Your task to perform on an android device: What's the weather going to be this weekend? Image 0: 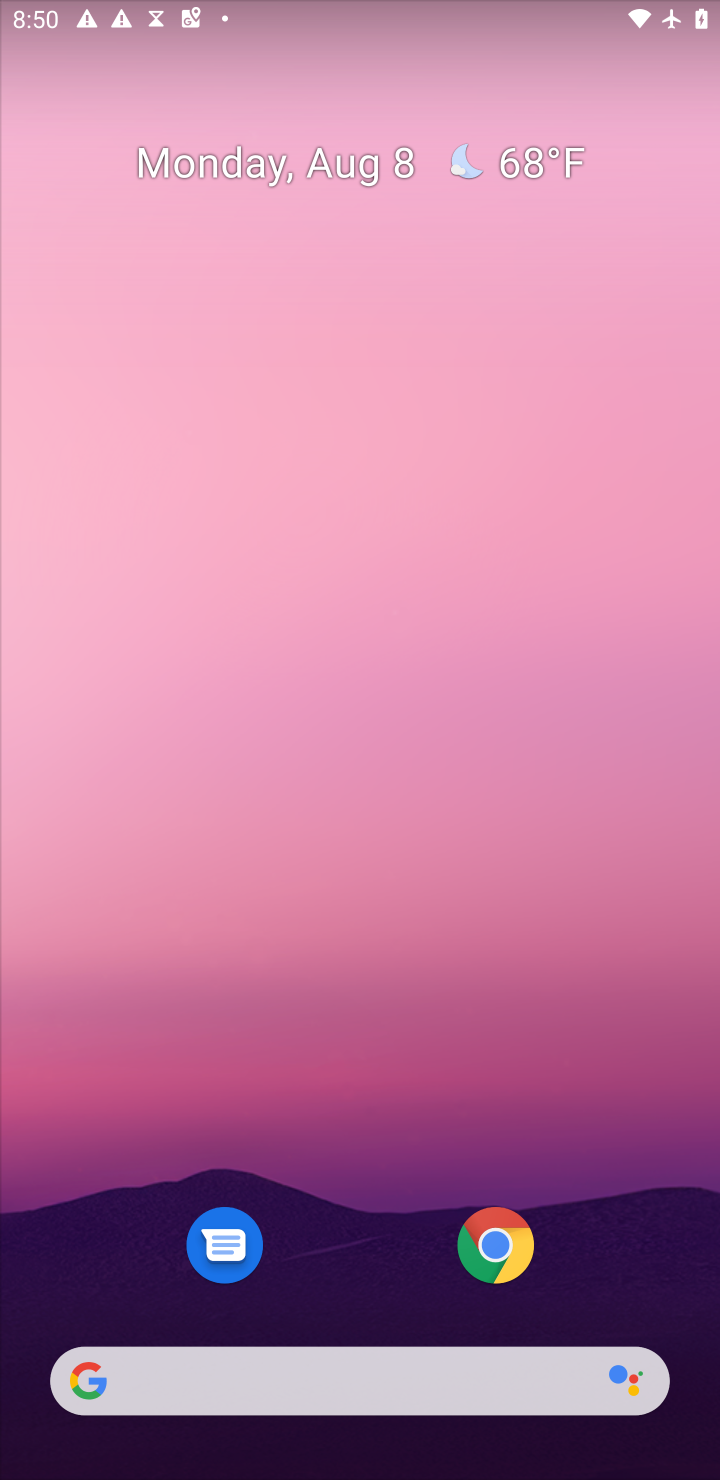
Step 0: drag from (370, 1329) to (504, 169)
Your task to perform on an android device: What's the weather going to be this weekend? Image 1: 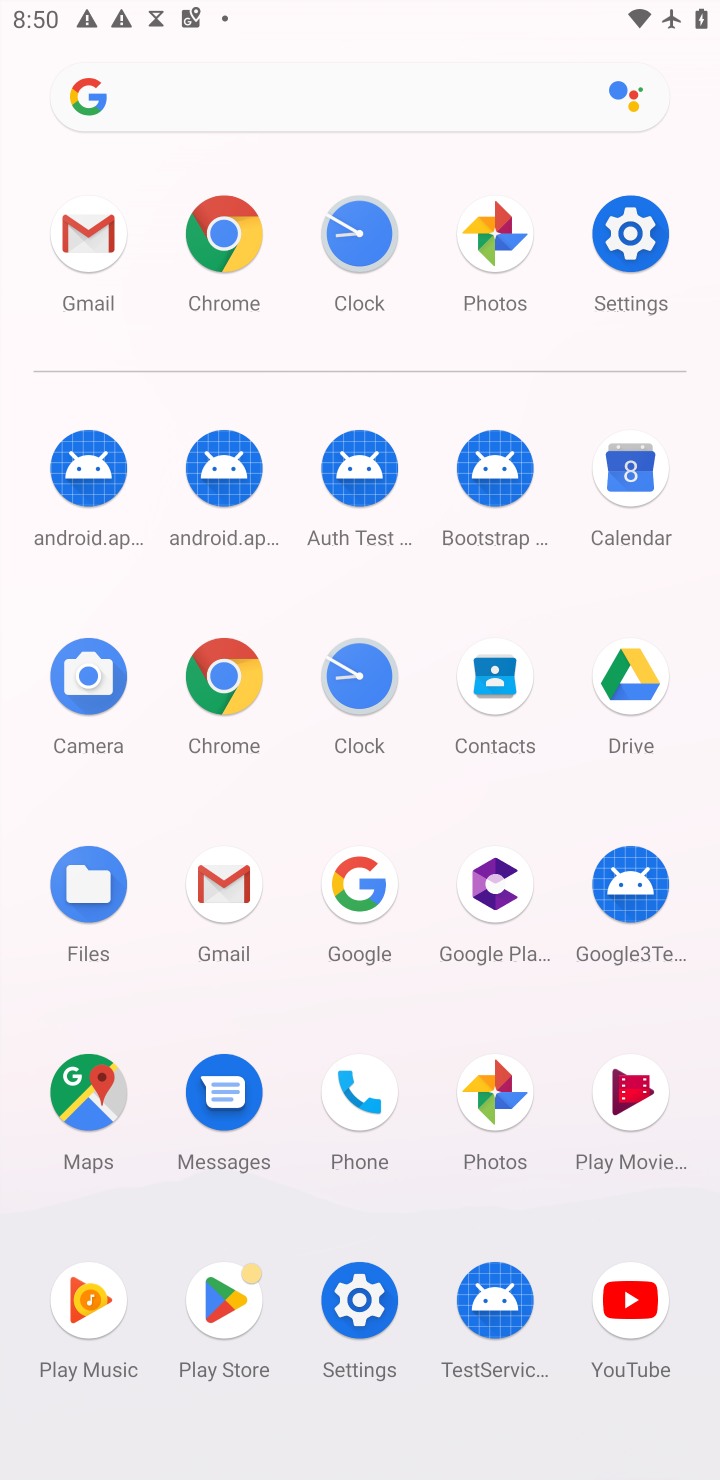
Step 1: click (346, 99)
Your task to perform on an android device: What's the weather going to be this weekend? Image 2: 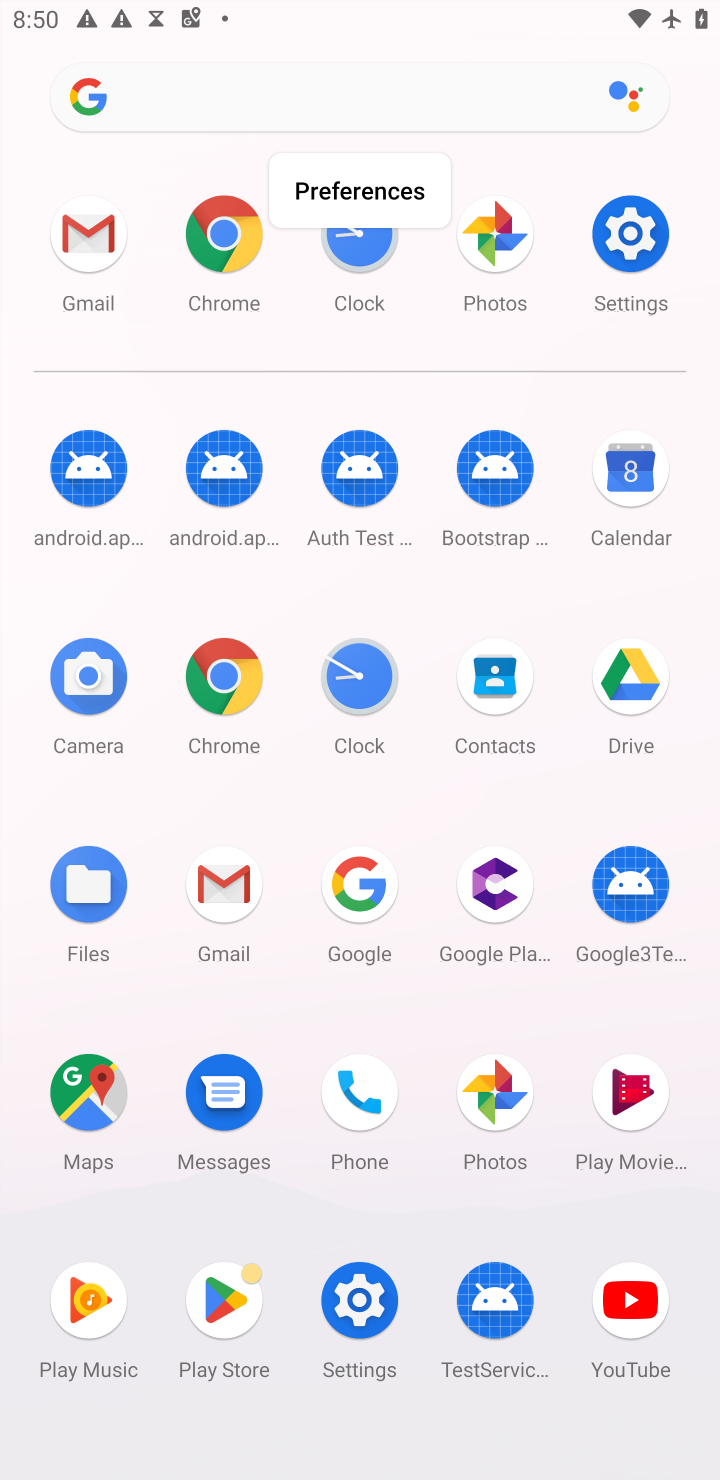
Step 2: click (339, 96)
Your task to perform on an android device: What's the weather going to be this weekend? Image 3: 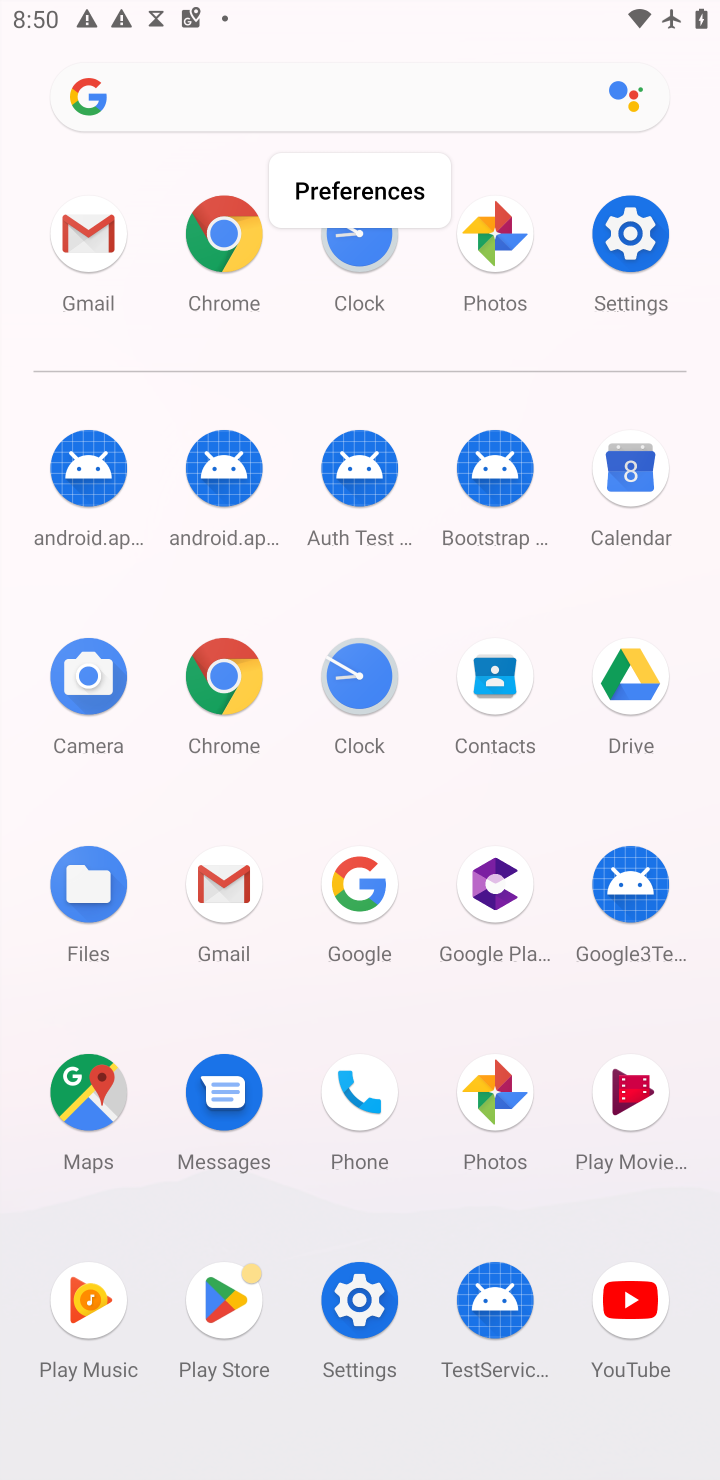
Step 3: click (333, 106)
Your task to perform on an android device: What's the weather going to be this weekend? Image 4: 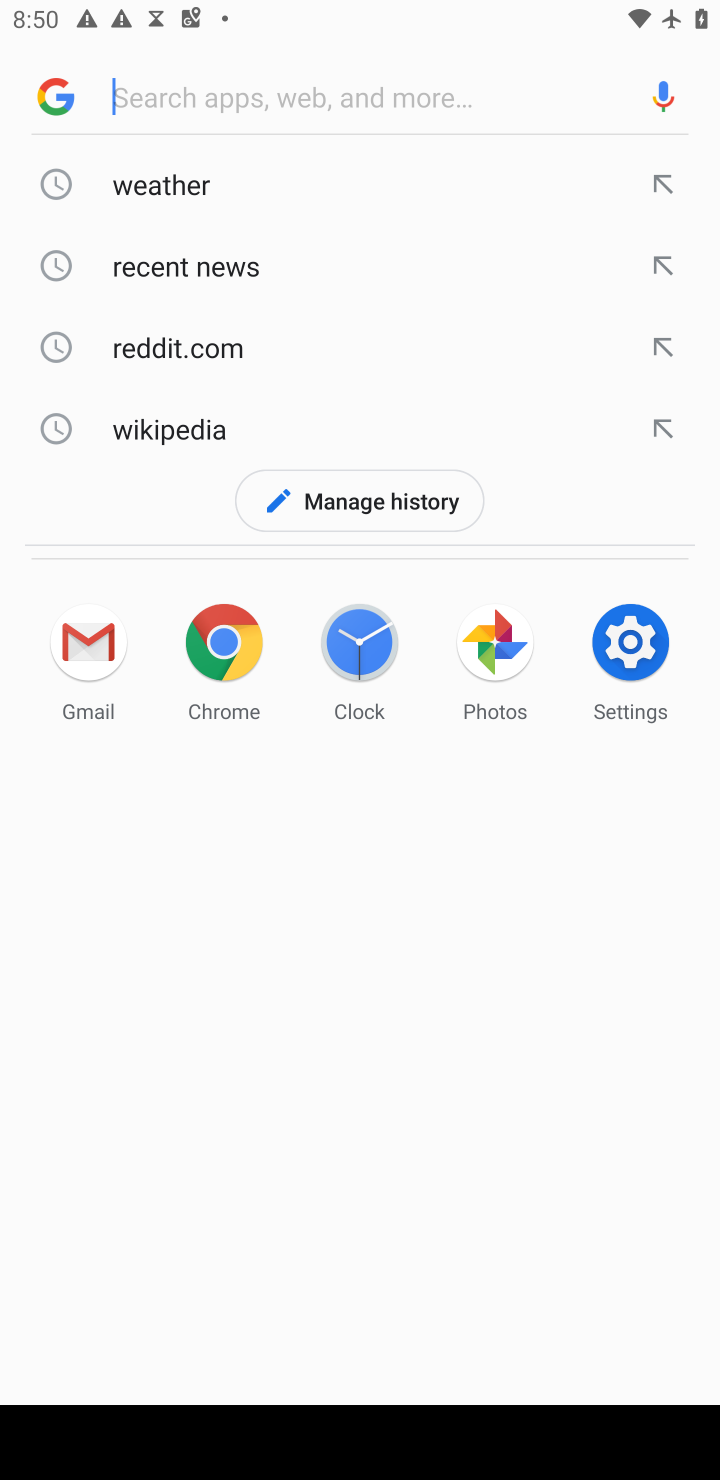
Step 4: click (211, 193)
Your task to perform on an android device: What's the weather going to be this weekend? Image 5: 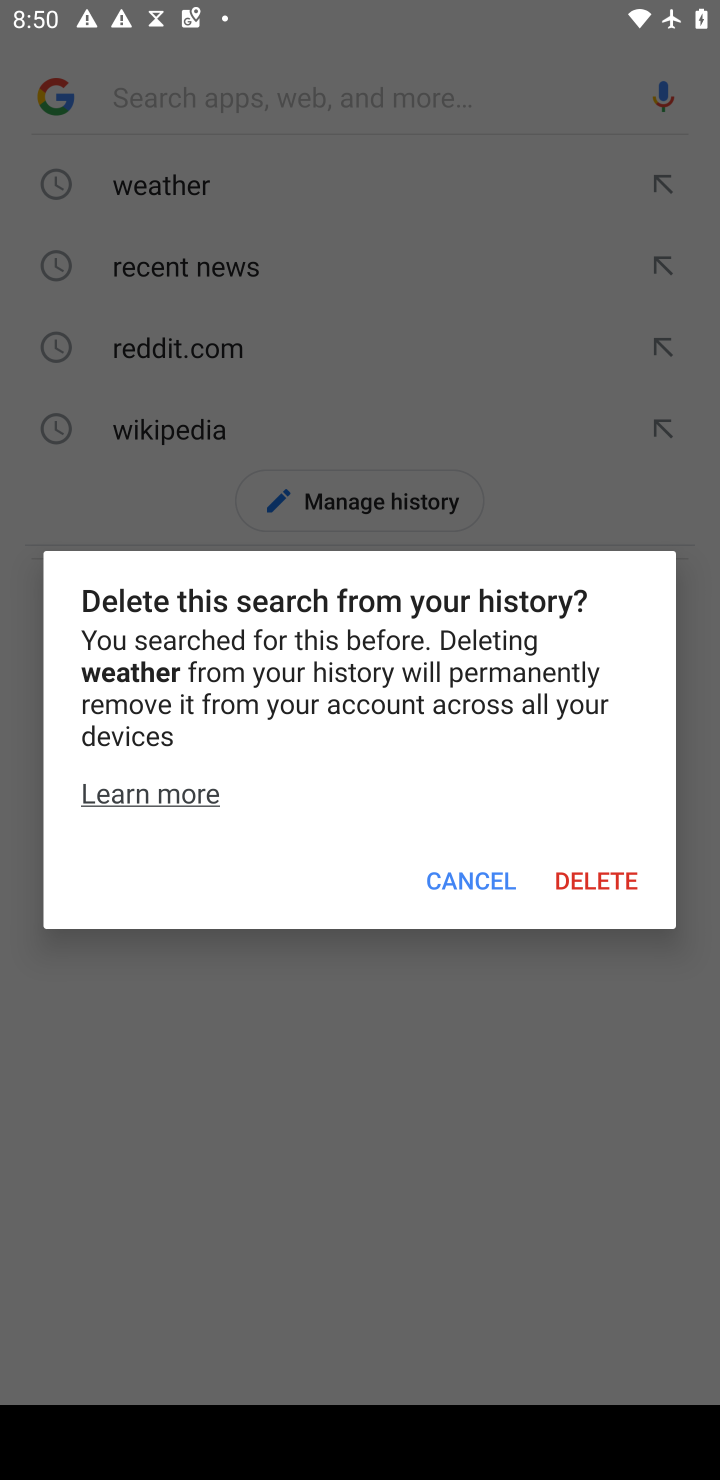
Step 5: click (462, 896)
Your task to perform on an android device: What's the weather going to be this weekend? Image 6: 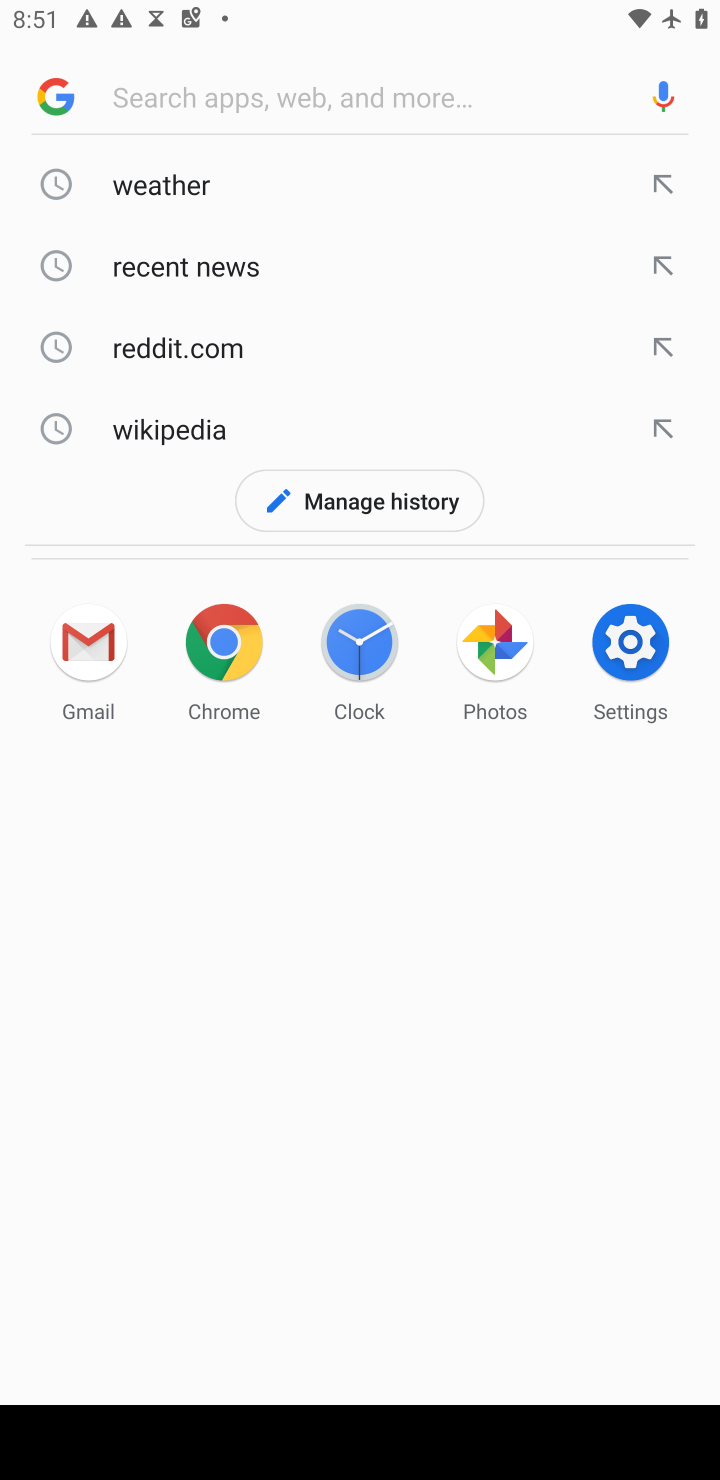
Step 6: click (210, 187)
Your task to perform on an android device: What's the weather going to be this weekend? Image 7: 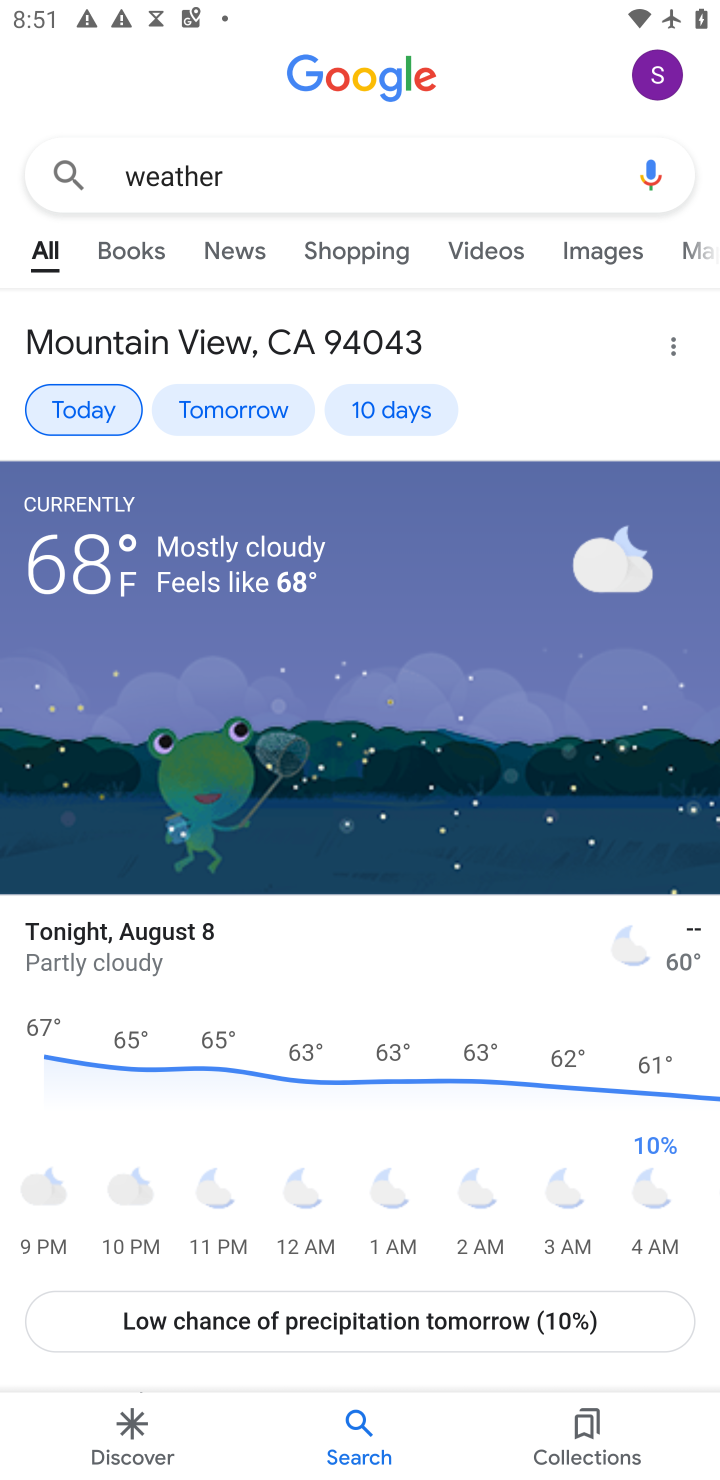
Step 7: click (413, 403)
Your task to perform on an android device: What's the weather going to be this weekend? Image 8: 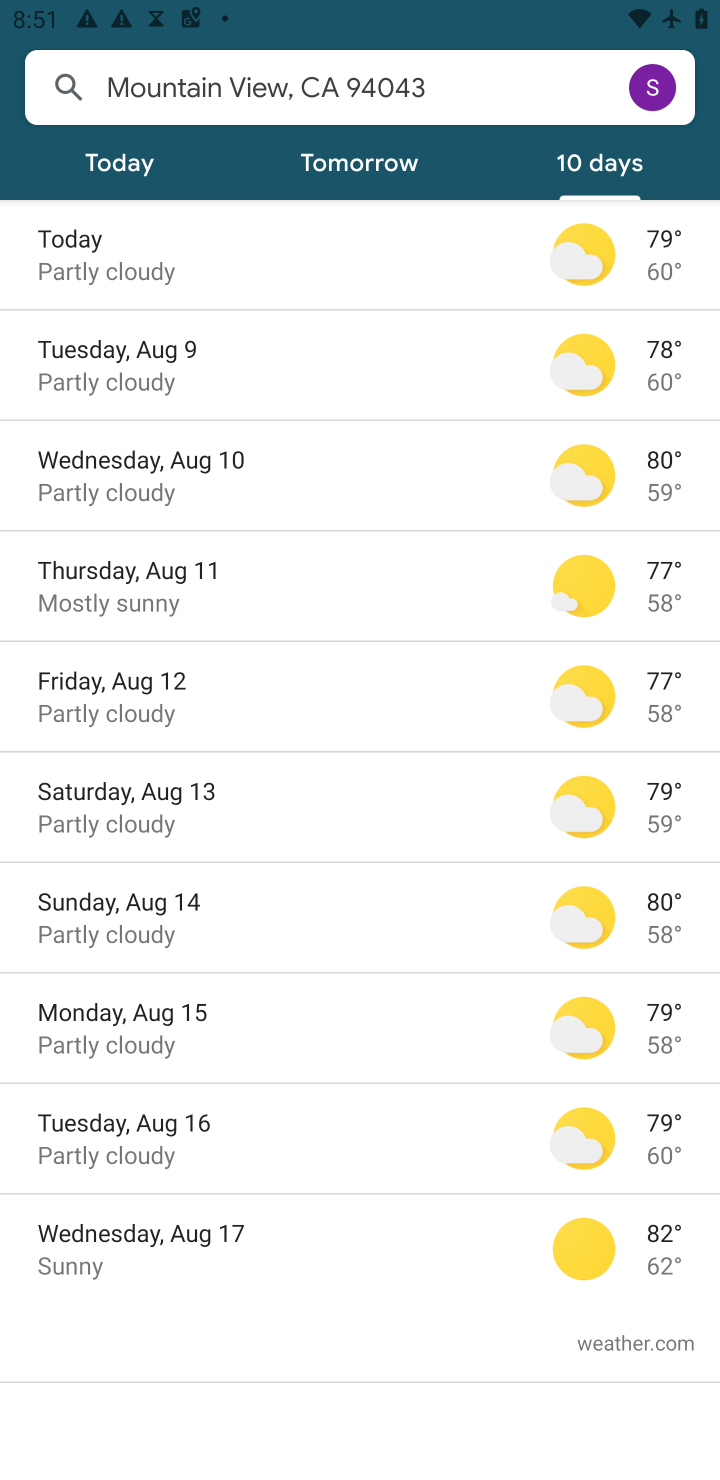
Step 8: task complete